Your task to perform on an android device: delete a single message in the gmail app Image 0: 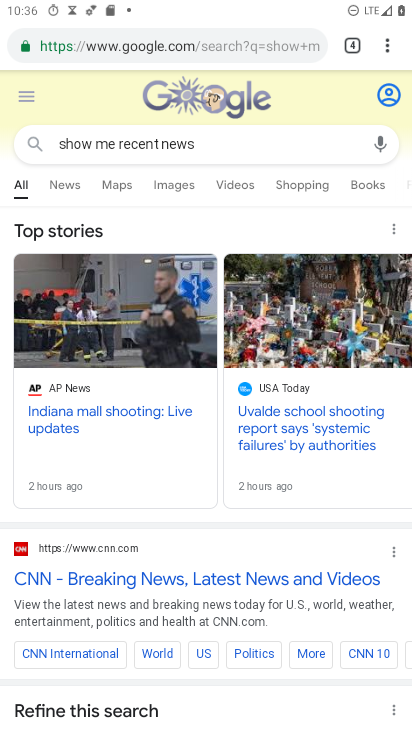
Step 0: press home button
Your task to perform on an android device: delete a single message in the gmail app Image 1: 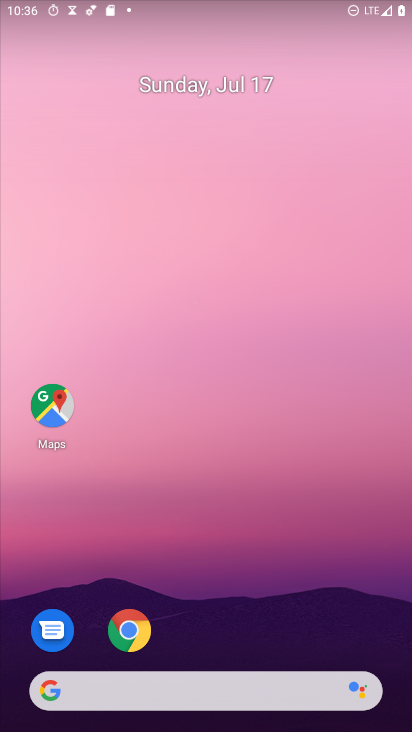
Step 1: drag from (290, 643) to (218, 7)
Your task to perform on an android device: delete a single message in the gmail app Image 2: 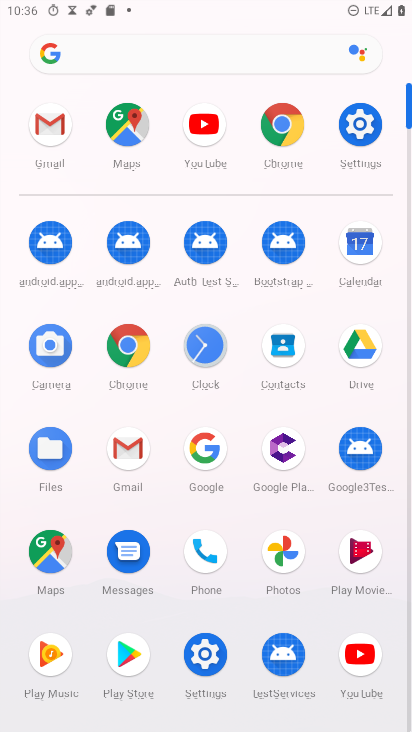
Step 2: click (134, 447)
Your task to perform on an android device: delete a single message in the gmail app Image 3: 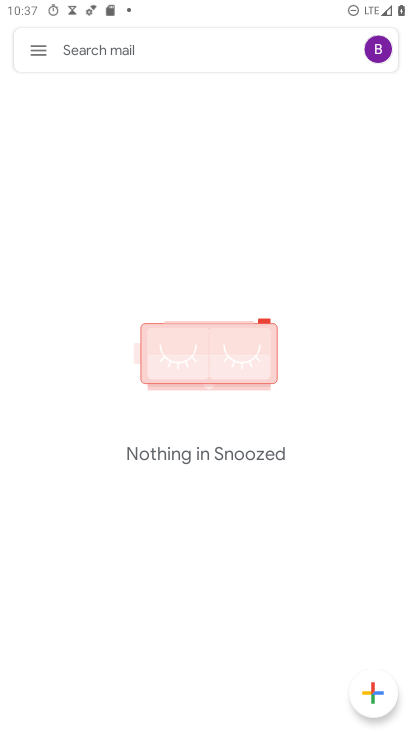
Step 3: click (49, 45)
Your task to perform on an android device: delete a single message in the gmail app Image 4: 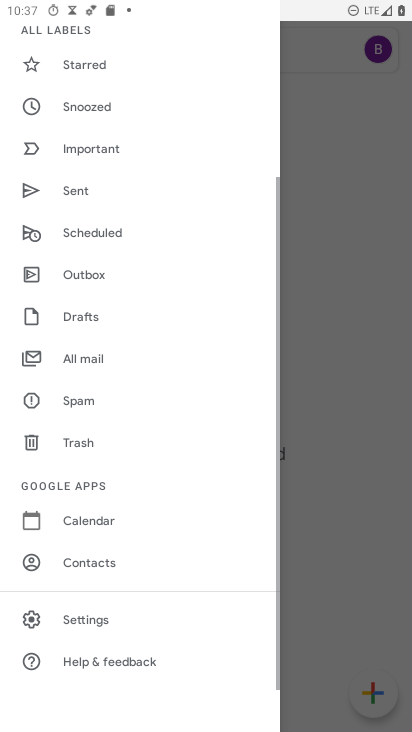
Step 4: drag from (81, 113) to (87, 523)
Your task to perform on an android device: delete a single message in the gmail app Image 5: 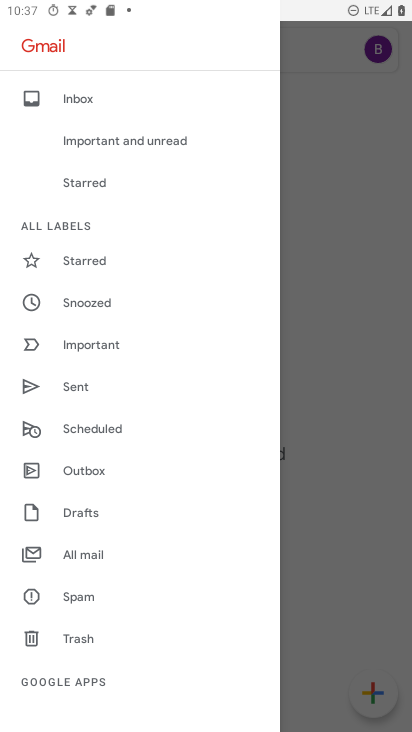
Step 5: click (99, 96)
Your task to perform on an android device: delete a single message in the gmail app Image 6: 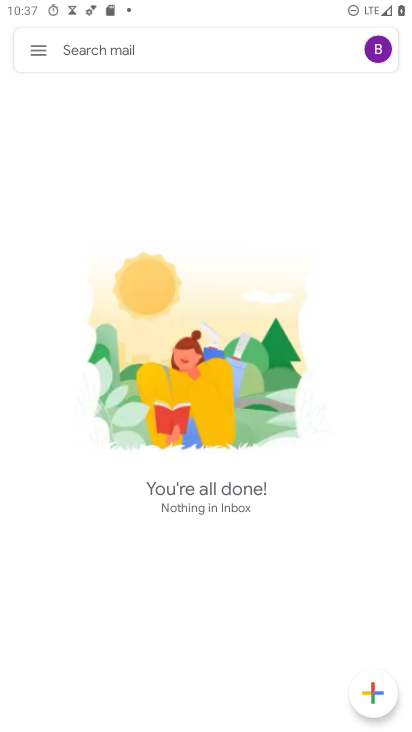
Step 6: task complete